Your task to perform on an android device: turn off location Image 0: 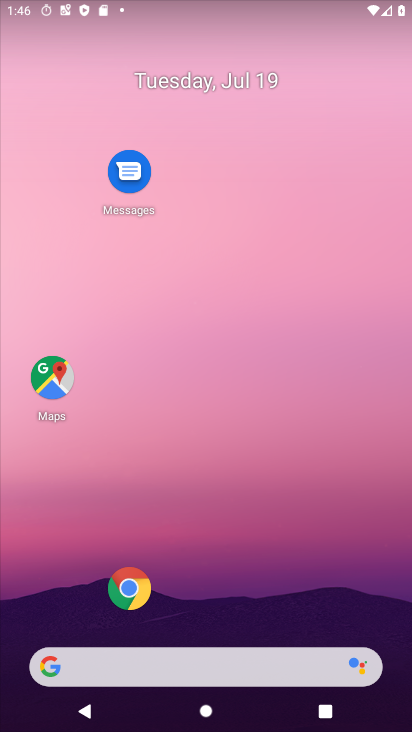
Step 0: drag from (46, 634) to (214, 139)
Your task to perform on an android device: turn off location Image 1: 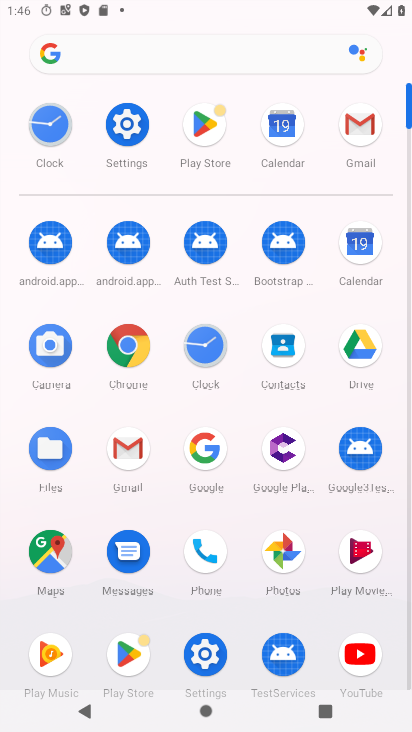
Step 1: click (202, 661)
Your task to perform on an android device: turn off location Image 2: 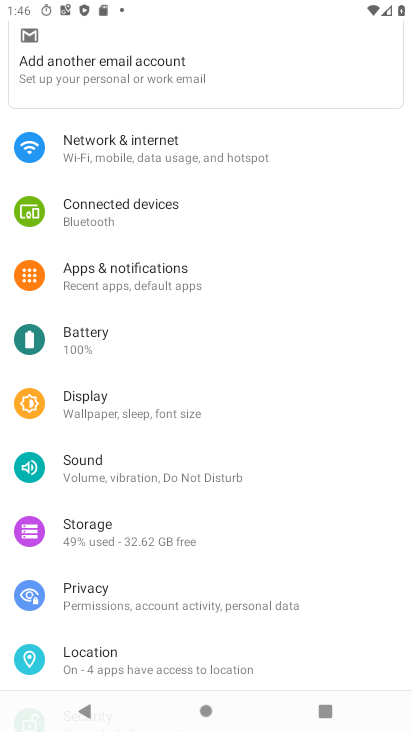
Step 2: click (130, 655)
Your task to perform on an android device: turn off location Image 3: 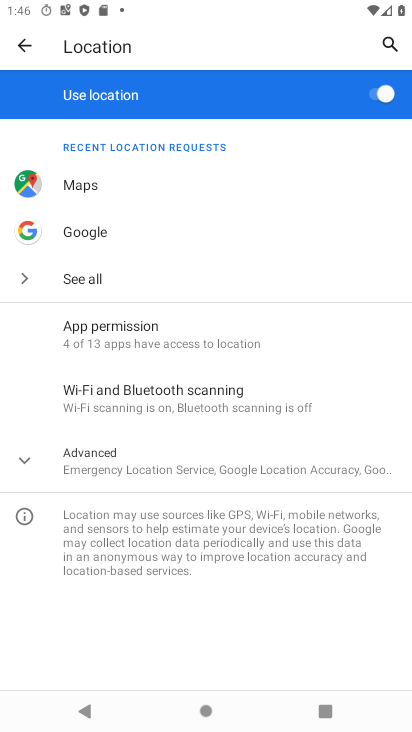
Step 3: click (392, 98)
Your task to perform on an android device: turn off location Image 4: 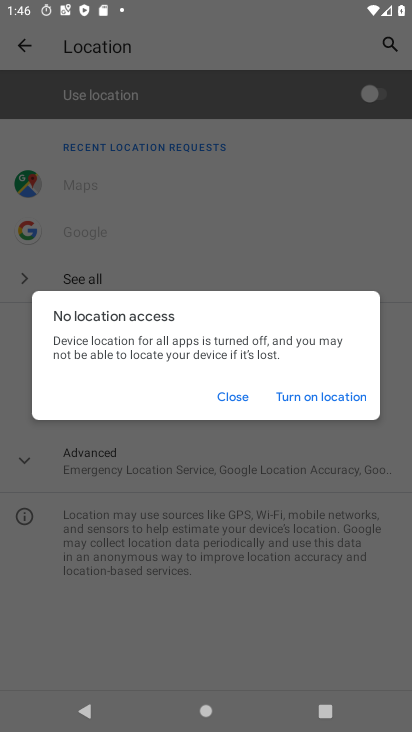
Step 4: task complete